Your task to perform on an android device: turn on javascript in the chrome app Image 0: 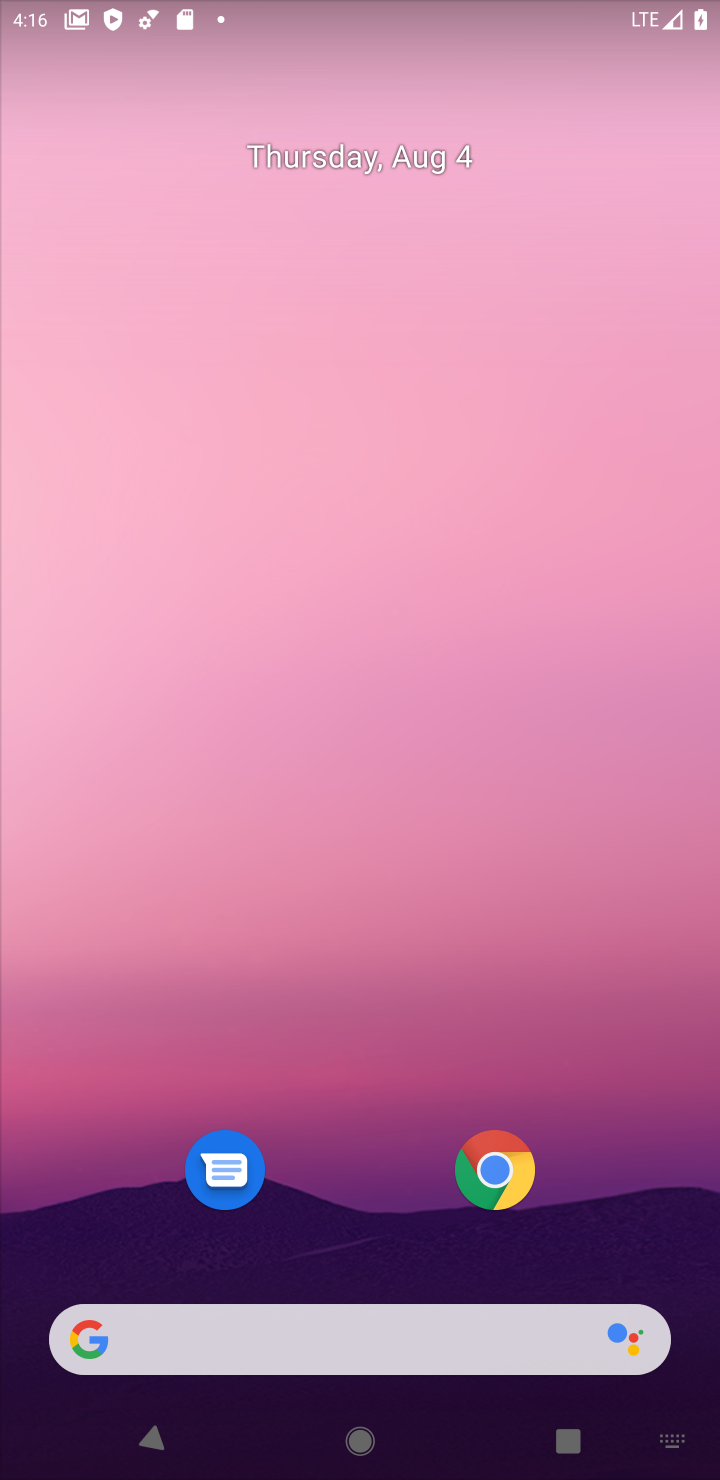
Step 0: click (473, 1204)
Your task to perform on an android device: turn on javascript in the chrome app Image 1: 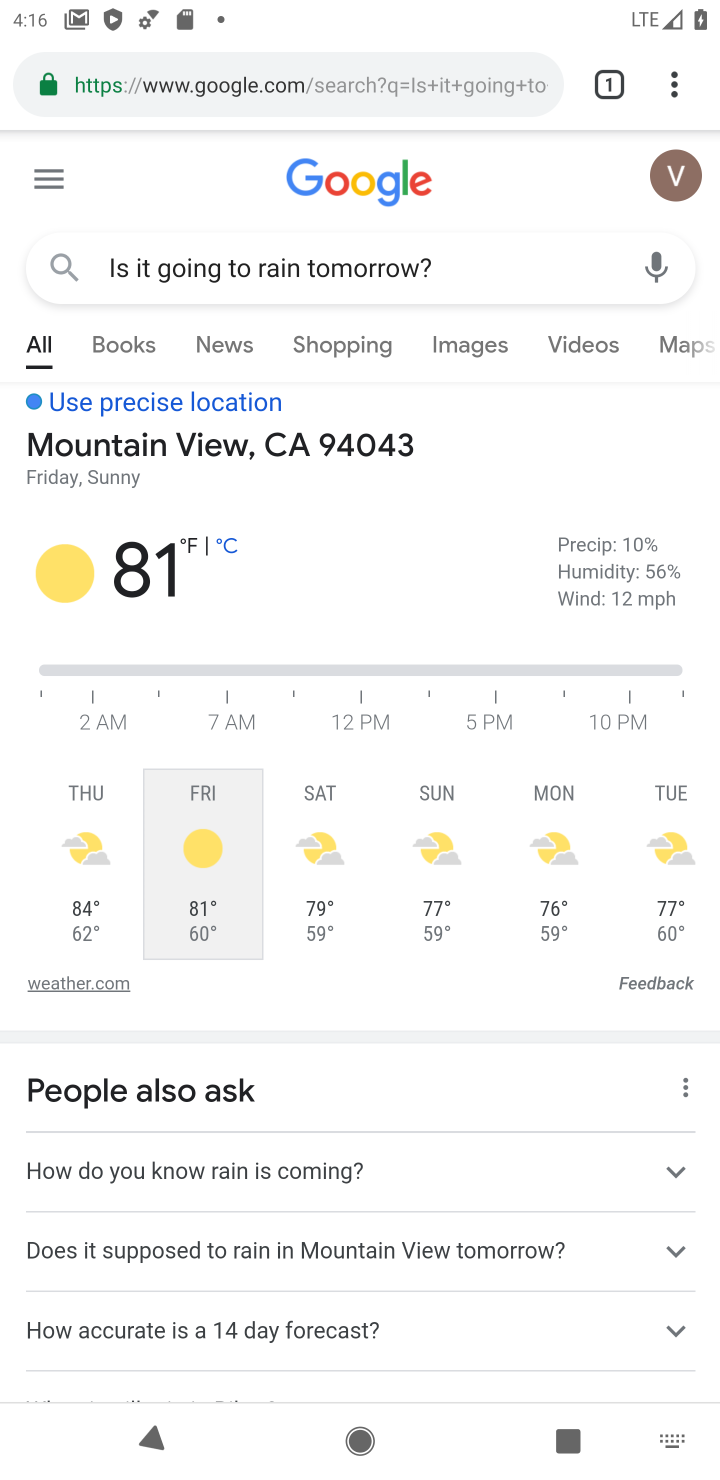
Step 1: click (677, 93)
Your task to perform on an android device: turn on javascript in the chrome app Image 2: 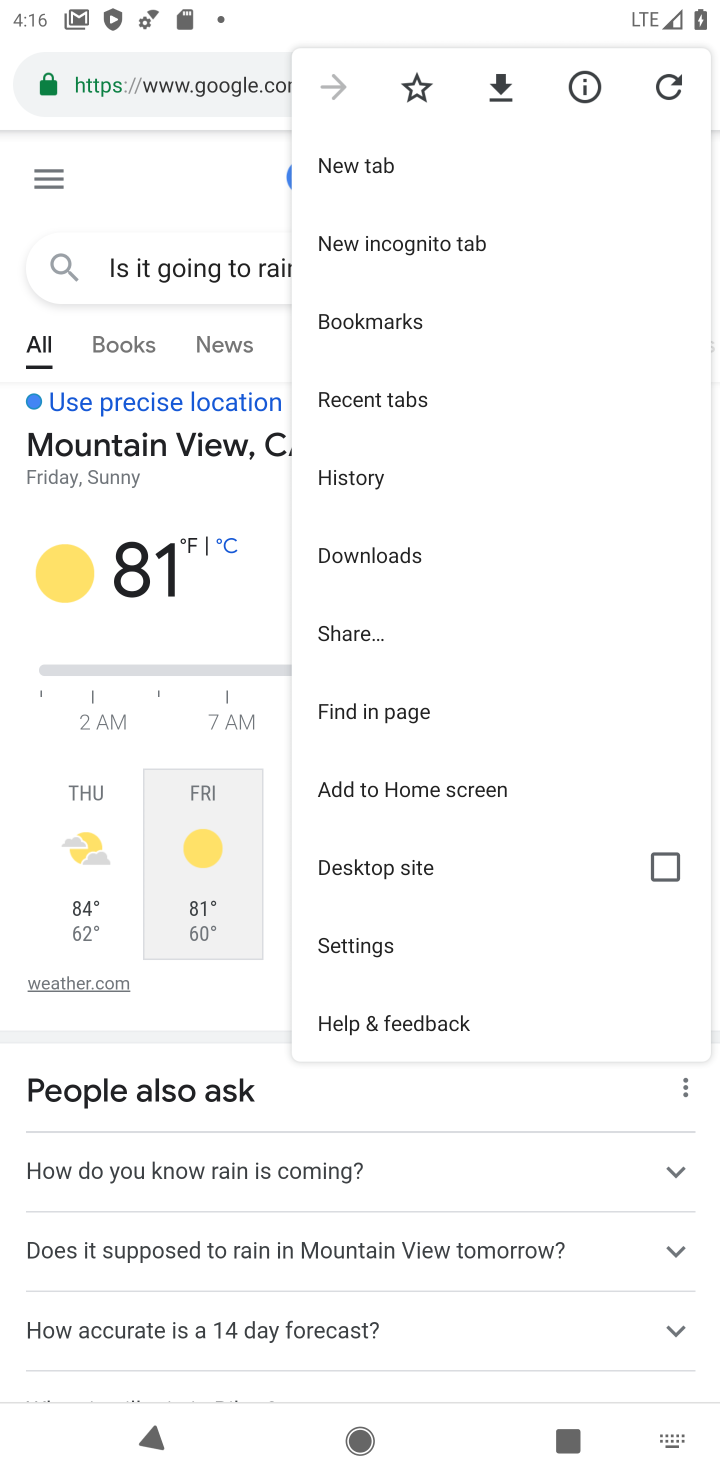
Step 2: click (407, 932)
Your task to perform on an android device: turn on javascript in the chrome app Image 3: 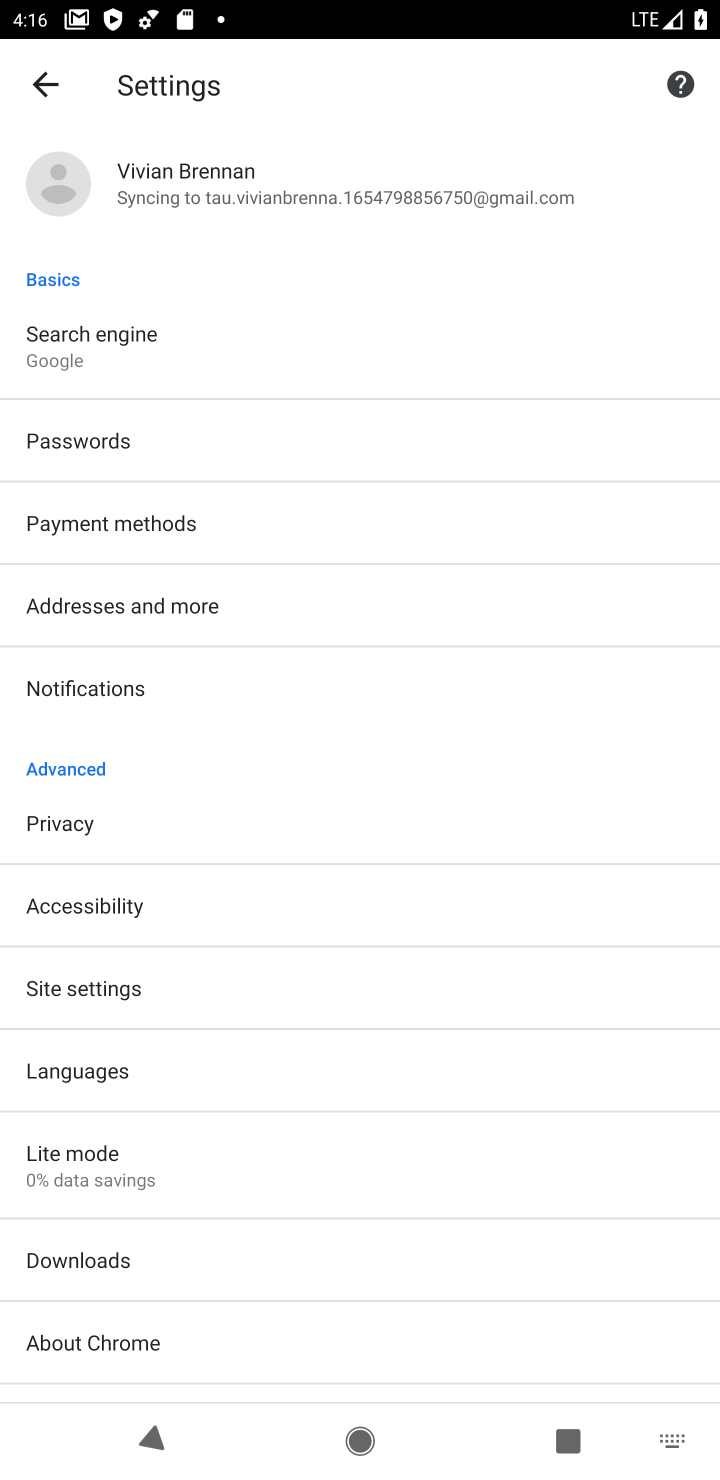
Step 3: click (241, 1001)
Your task to perform on an android device: turn on javascript in the chrome app Image 4: 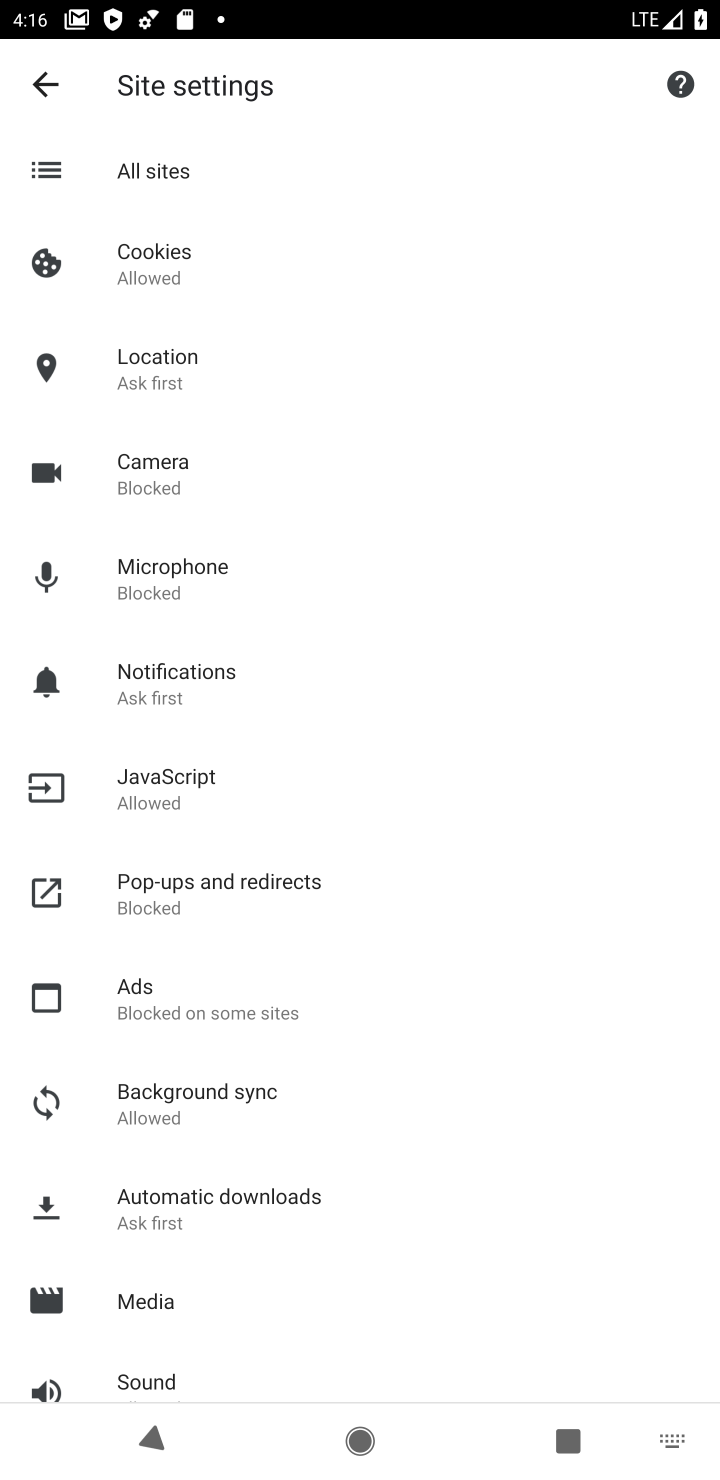
Step 4: click (242, 772)
Your task to perform on an android device: turn on javascript in the chrome app Image 5: 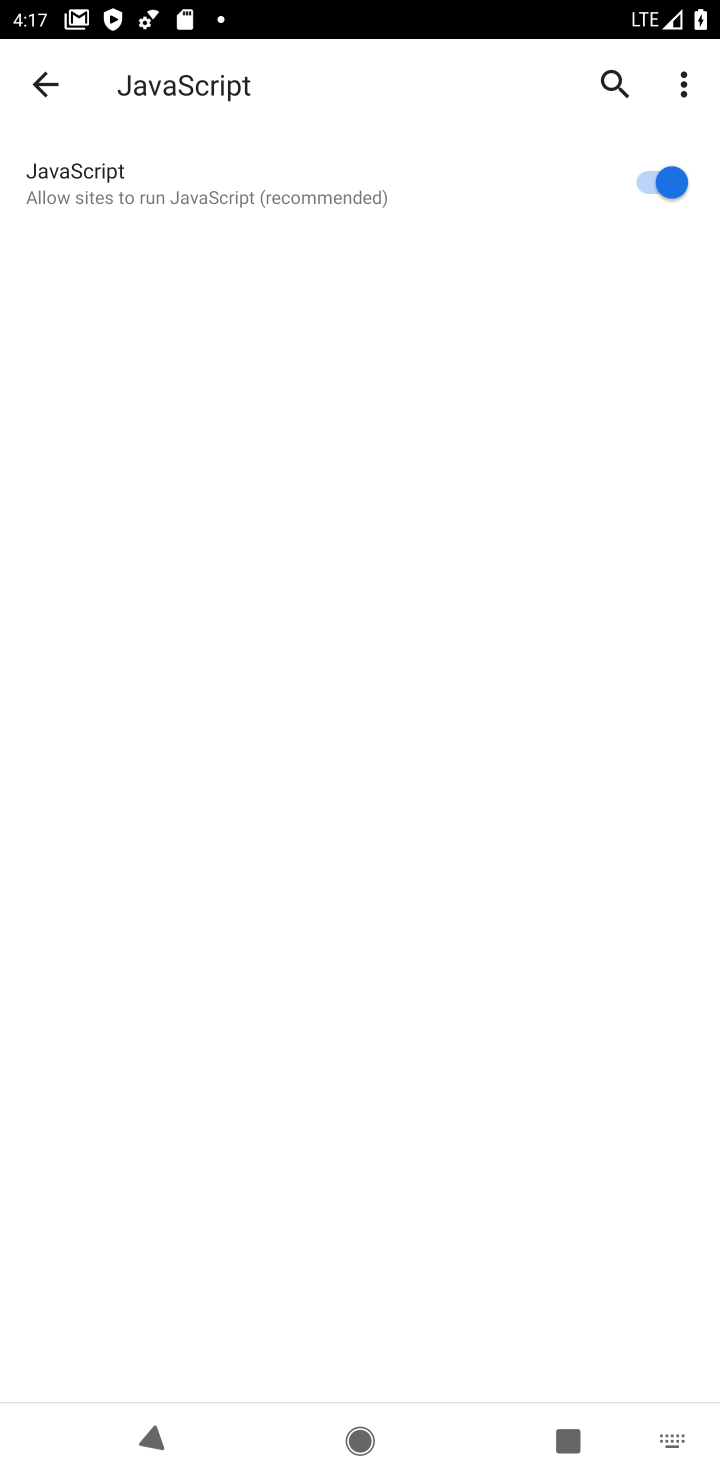
Step 5: task complete